Your task to perform on an android device: turn on the 24-hour format for clock Image 0: 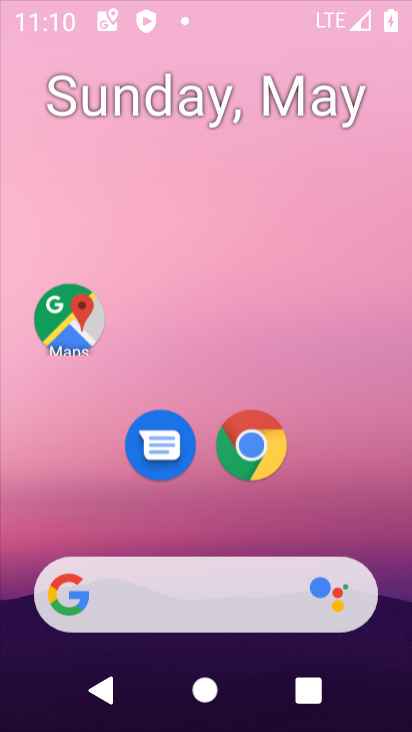
Step 0: drag from (267, 135) to (219, 0)
Your task to perform on an android device: turn on the 24-hour format for clock Image 1: 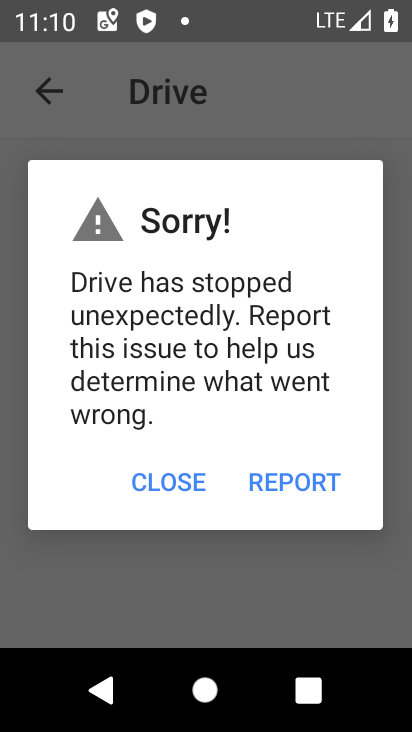
Step 1: press home button
Your task to perform on an android device: turn on the 24-hour format for clock Image 2: 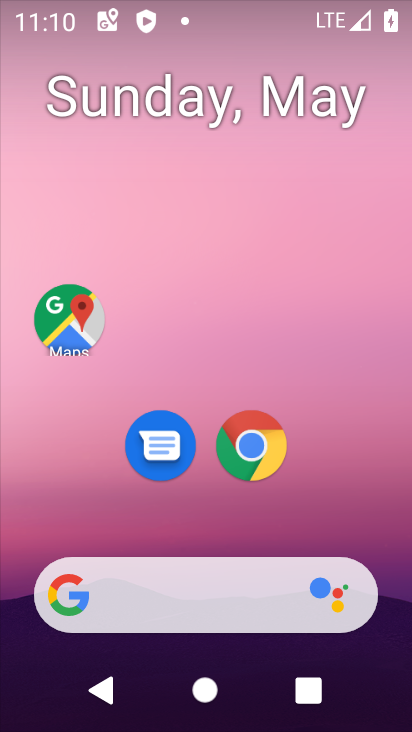
Step 2: drag from (201, 531) to (226, 157)
Your task to perform on an android device: turn on the 24-hour format for clock Image 3: 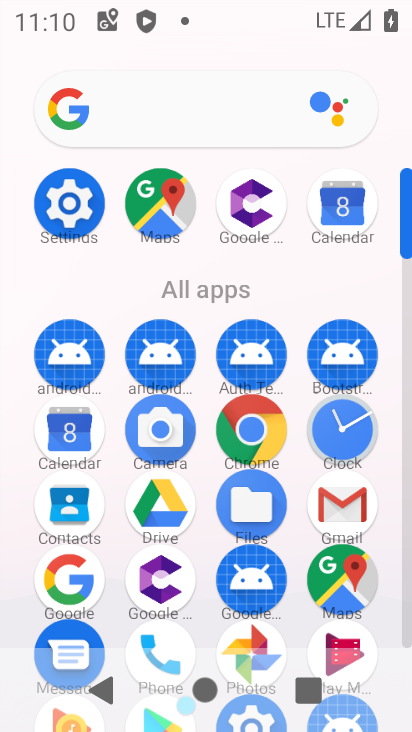
Step 3: click (352, 454)
Your task to perform on an android device: turn on the 24-hour format for clock Image 4: 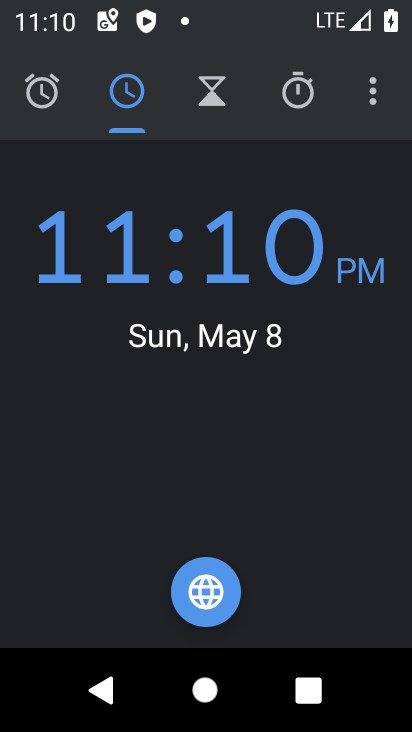
Step 4: click (373, 80)
Your task to perform on an android device: turn on the 24-hour format for clock Image 5: 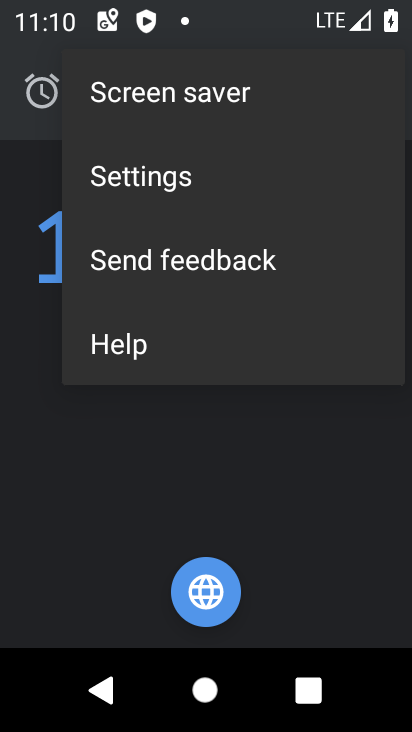
Step 5: click (169, 174)
Your task to perform on an android device: turn on the 24-hour format for clock Image 6: 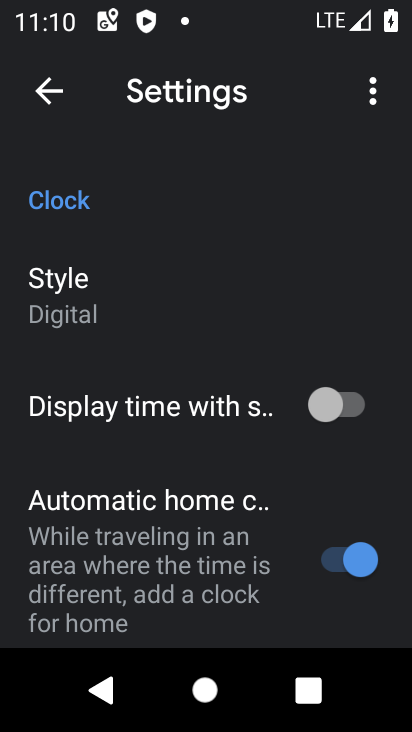
Step 6: drag from (187, 583) to (286, 133)
Your task to perform on an android device: turn on the 24-hour format for clock Image 7: 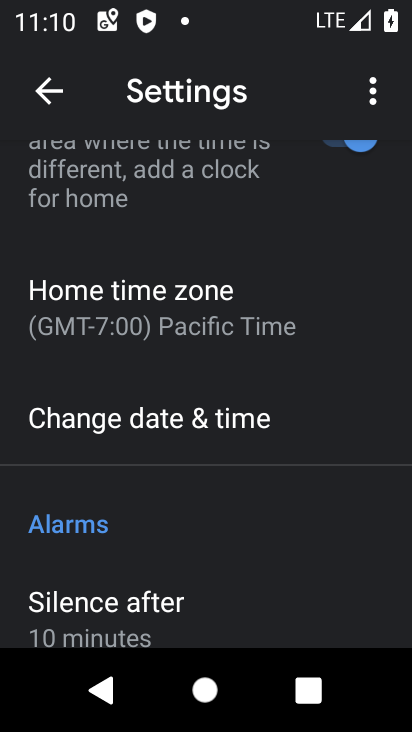
Step 7: click (179, 427)
Your task to perform on an android device: turn on the 24-hour format for clock Image 8: 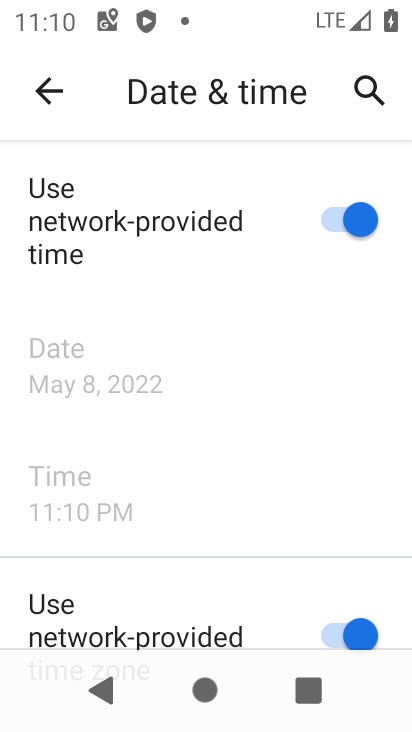
Step 8: drag from (198, 588) to (260, 196)
Your task to perform on an android device: turn on the 24-hour format for clock Image 9: 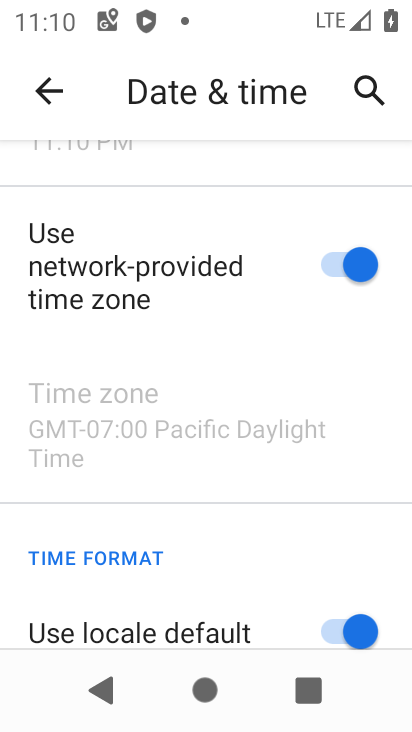
Step 9: drag from (249, 557) to (296, 191)
Your task to perform on an android device: turn on the 24-hour format for clock Image 10: 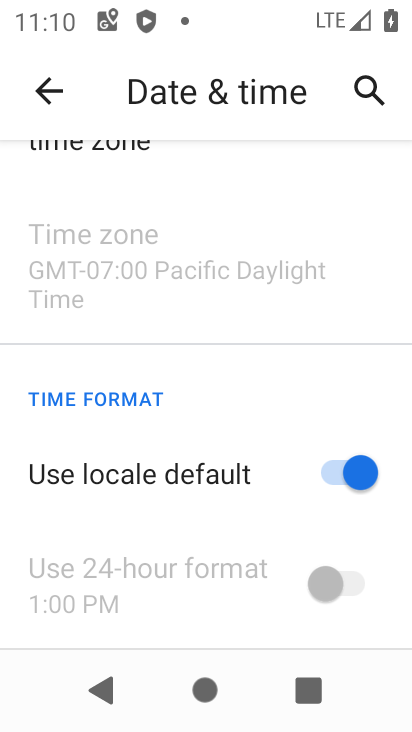
Step 10: click (335, 473)
Your task to perform on an android device: turn on the 24-hour format for clock Image 11: 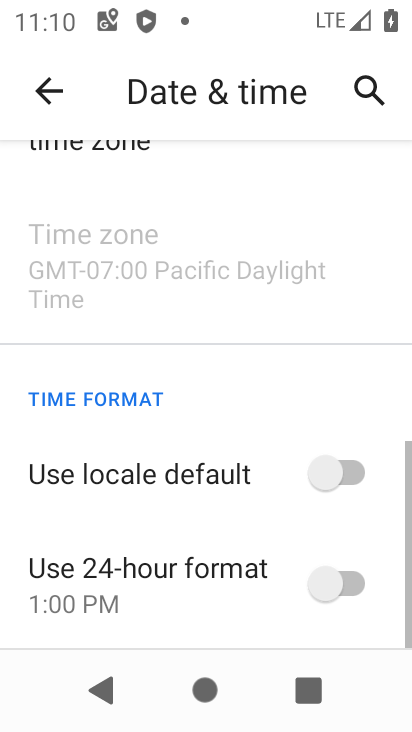
Step 11: click (356, 587)
Your task to perform on an android device: turn on the 24-hour format for clock Image 12: 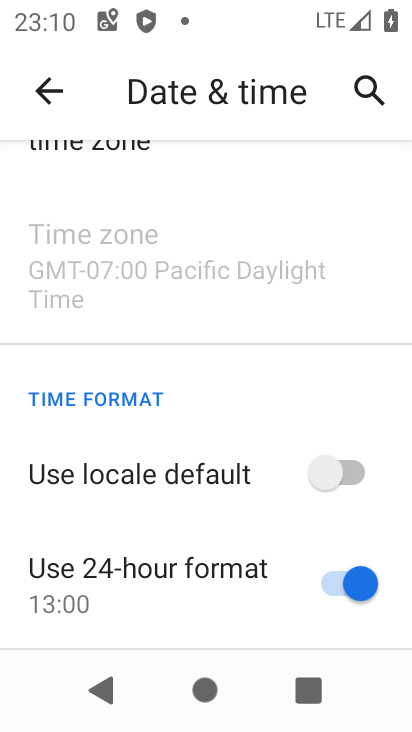
Step 12: task complete